Your task to perform on an android device: Go to Amazon Image 0: 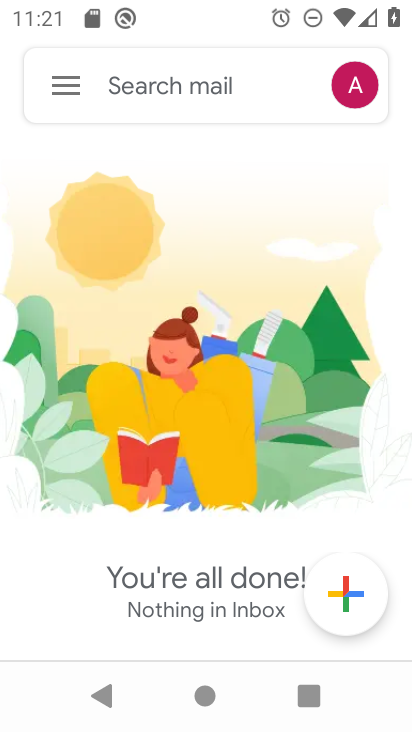
Step 0: press home button
Your task to perform on an android device: Go to Amazon Image 1: 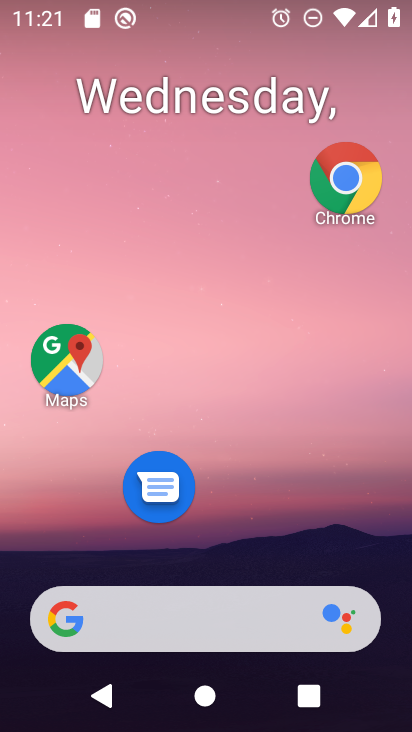
Step 1: drag from (177, 609) to (259, 193)
Your task to perform on an android device: Go to Amazon Image 2: 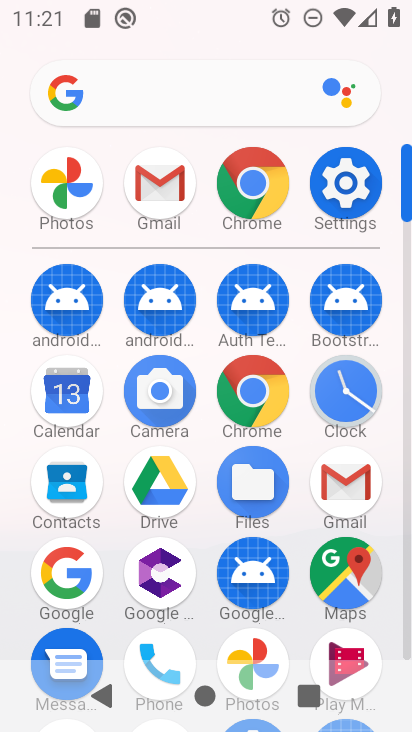
Step 2: click (256, 206)
Your task to perform on an android device: Go to Amazon Image 3: 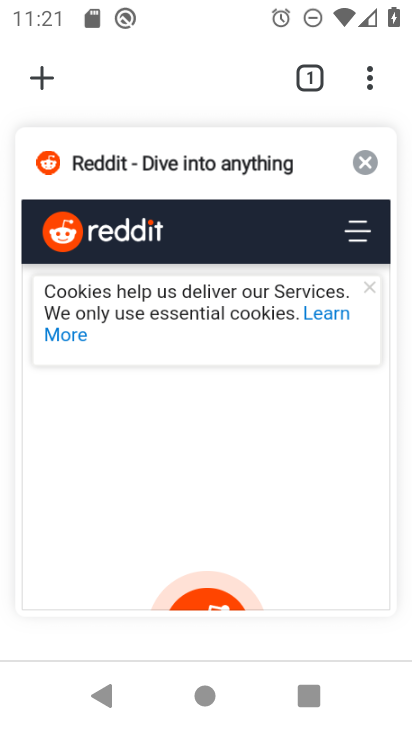
Step 3: click (31, 80)
Your task to perform on an android device: Go to Amazon Image 4: 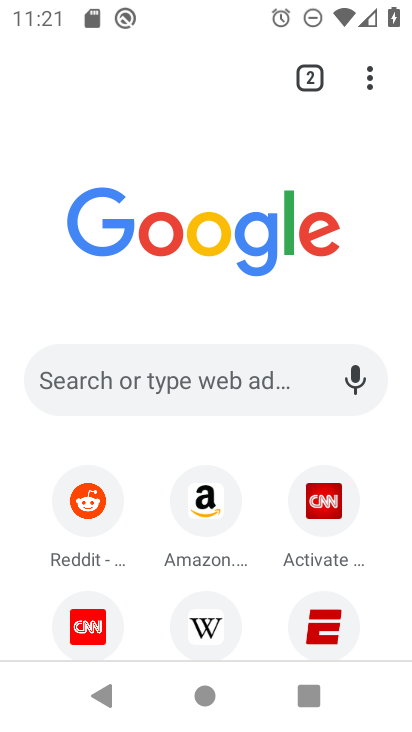
Step 4: click (200, 537)
Your task to perform on an android device: Go to Amazon Image 5: 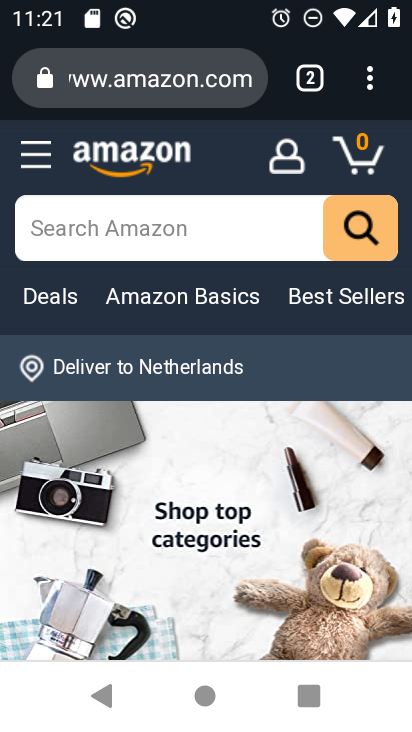
Step 5: task complete